Your task to perform on an android device: turn on sleep mode Image 0: 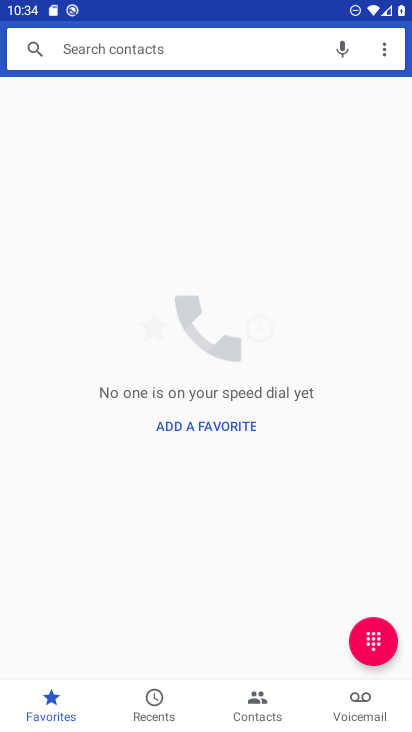
Step 0: press home button
Your task to perform on an android device: turn on sleep mode Image 1: 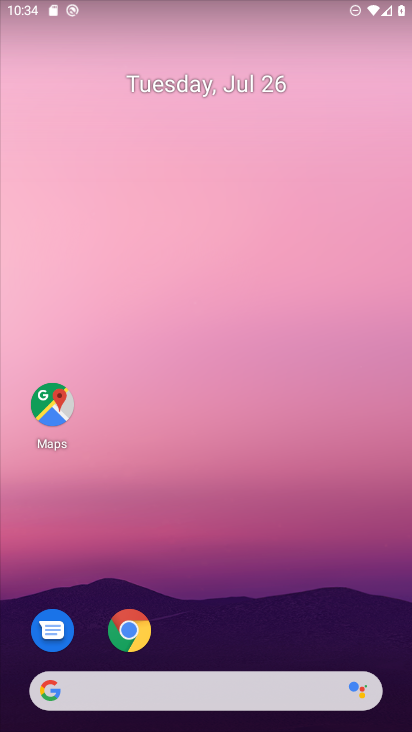
Step 1: drag from (377, 642) to (311, 153)
Your task to perform on an android device: turn on sleep mode Image 2: 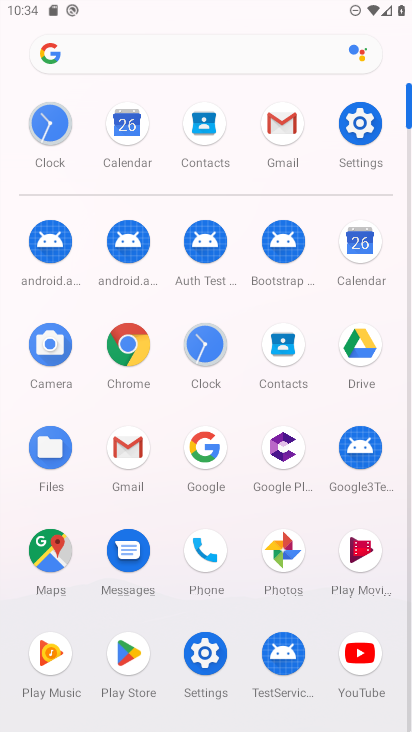
Step 2: click (206, 657)
Your task to perform on an android device: turn on sleep mode Image 3: 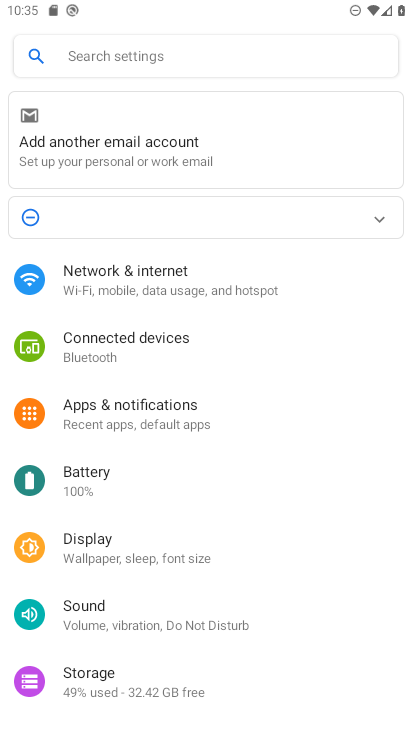
Step 3: click (79, 546)
Your task to perform on an android device: turn on sleep mode Image 4: 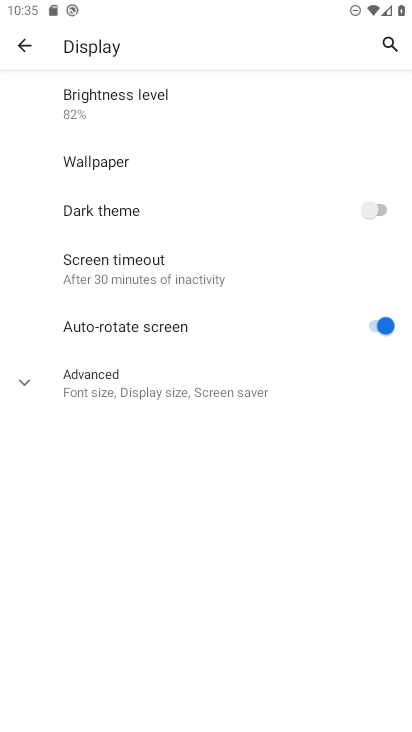
Step 4: click (22, 381)
Your task to perform on an android device: turn on sleep mode Image 5: 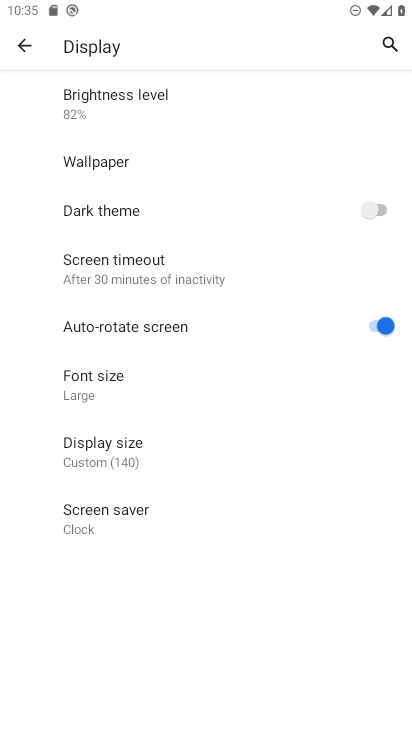
Step 5: task complete